Your task to perform on an android device: Open network settings Image 0: 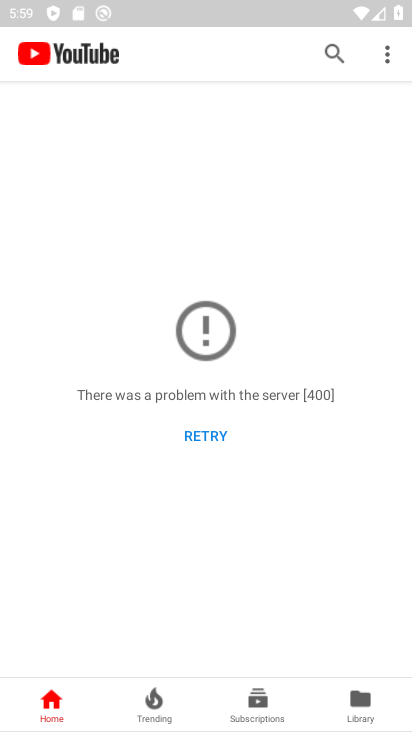
Step 0: press home button
Your task to perform on an android device: Open network settings Image 1: 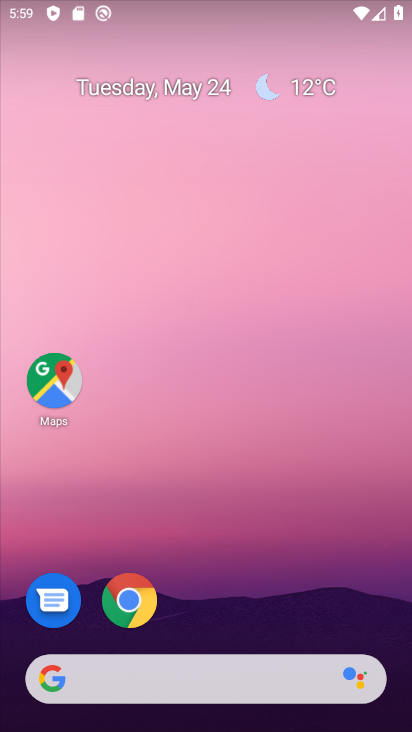
Step 1: drag from (177, 663) to (148, 63)
Your task to perform on an android device: Open network settings Image 2: 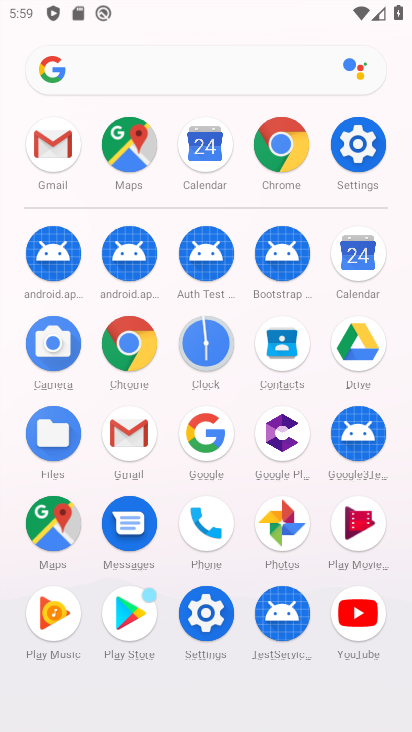
Step 2: click (367, 136)
Your task to perform on an android device: Open network settings Image 3: 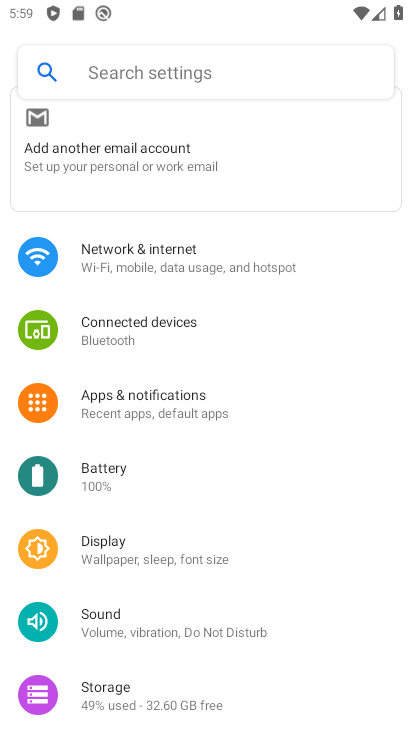
Step 3: click (186, 259)
Your task to perform on an android device: Open network settings Image 4: 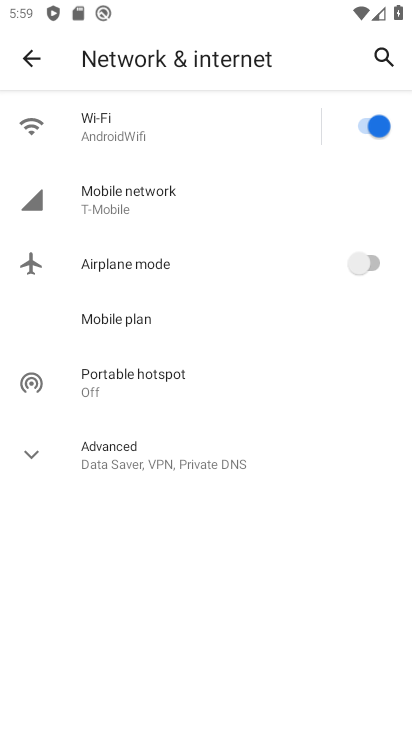
Step 4: click (159, 111)
Your task to perform on an android device: Open network settings Image 5: 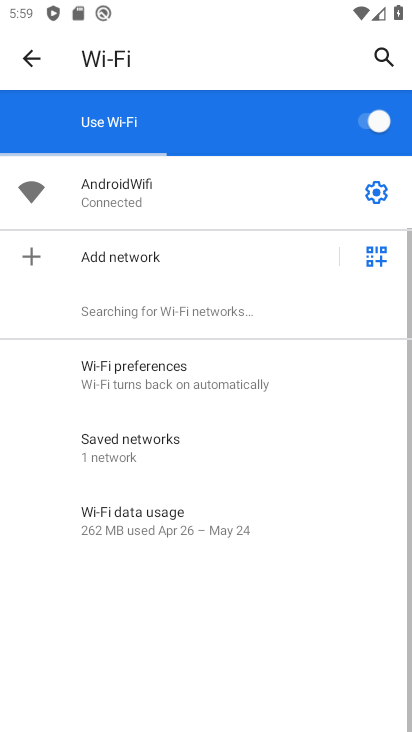
Step 5: task complete